Your task to perform on an android device: add a contact in the contacts app Image 0: 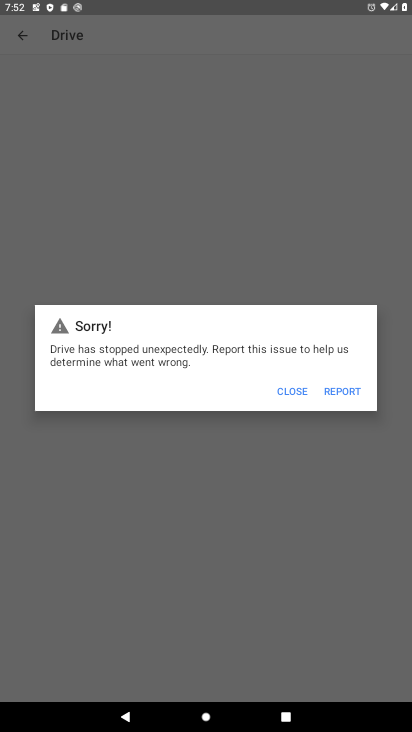
Step 0: press home button
Your task to perform on an android device: add a contact in the contacts app Image 1: 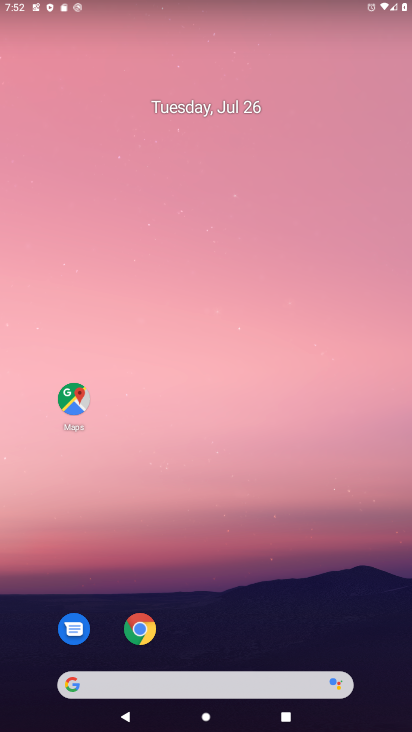
Step 1: drag from (267, 607) to (230, 50)
Your task to perform on an android device: add a contact in the contacts app Image 2: 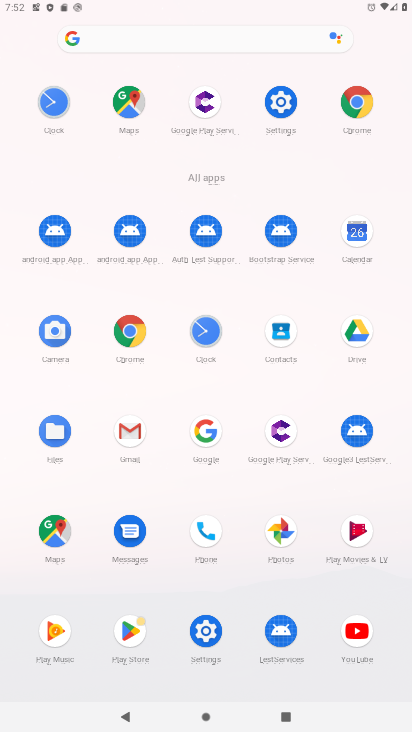
Step 2: click (282, 323)
Your task to perform on an android device: add a contact in the contacts app Image 3: 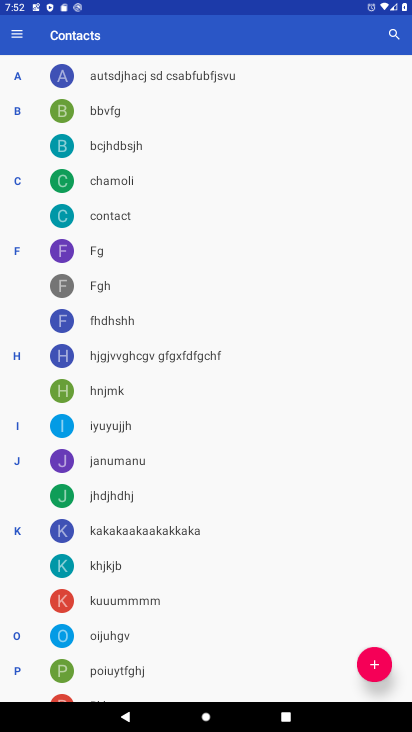
Step 3: click (373, 662)
Your task to perform on an android device: add a contact in the contacts app Image 4: 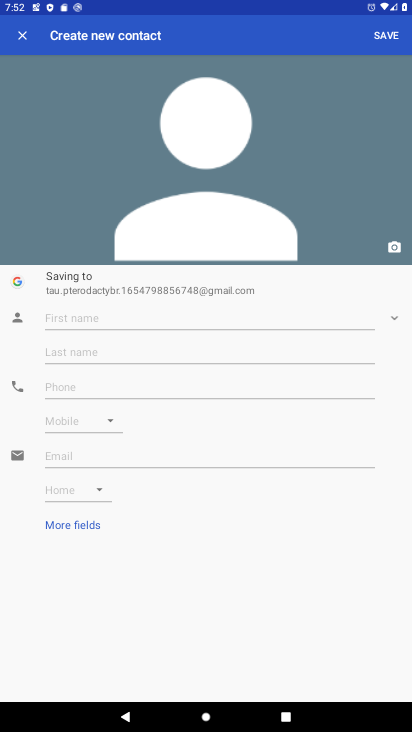
Step 4: click (373, 662)
Your task to perform on an android device: add a contact in the contacts app Image 5: 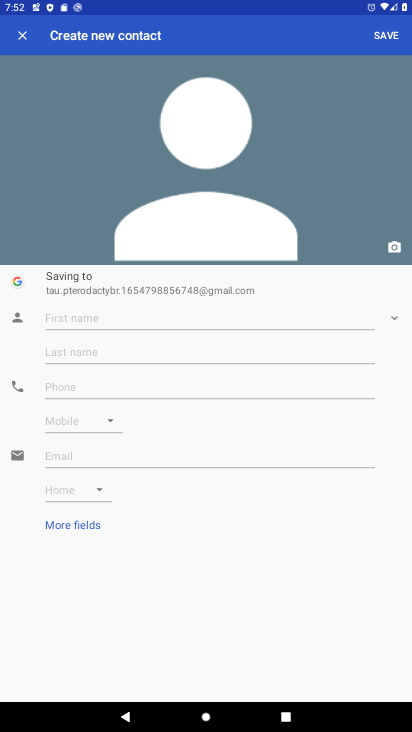
Step 5: click (135, 325)
Your task to perform on an android device: add a contact in the contacts app Image 6: 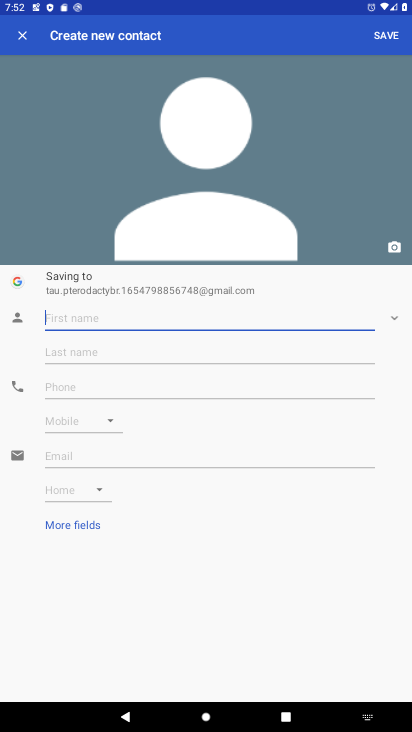
Step 6: type "mbc"
Your task to perform on an android device: add a contact in the contacts app Image 7: 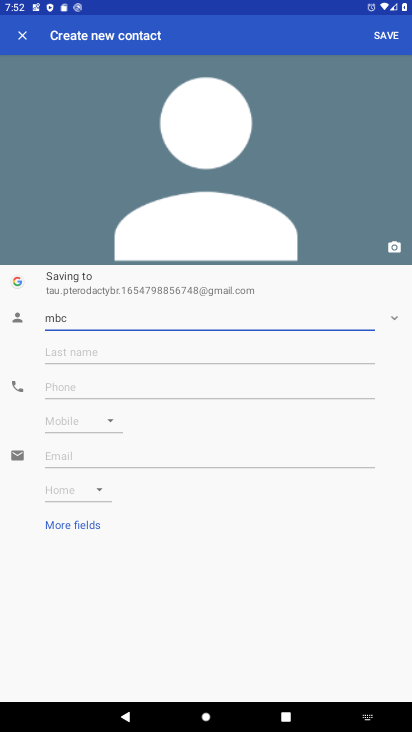
Step 7: click (64, 382)
Your task to perform on an android device: add a contact in the contacts app Image 8: 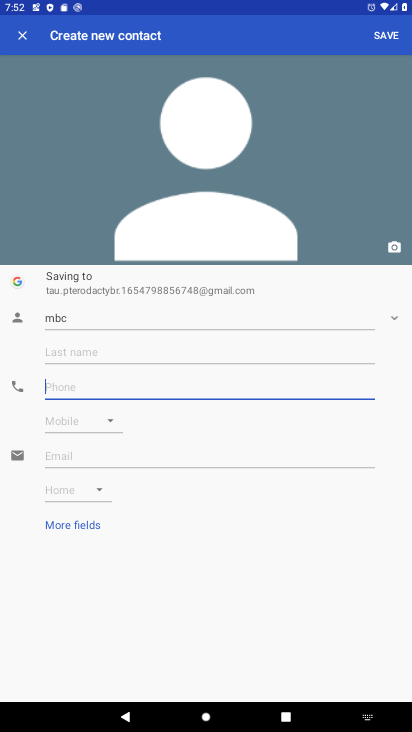
Step 8: type "9807654321"
Your task to perform on an android device: add a contact in the contacts app Image 9: 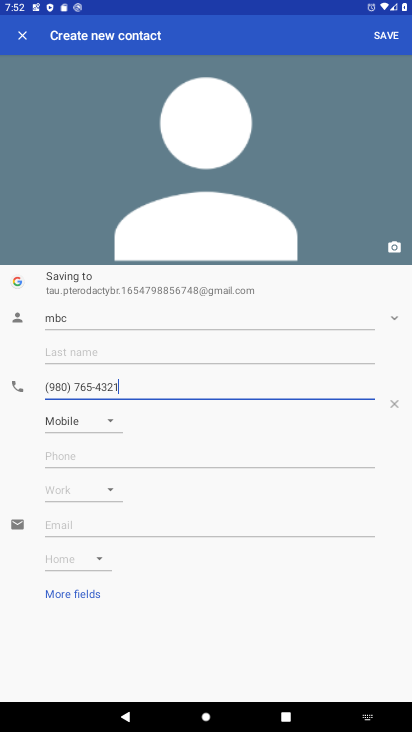
Step 9: click (381, 32)
Your task to perform on an android device: add a contact in the contacts app Image 10: 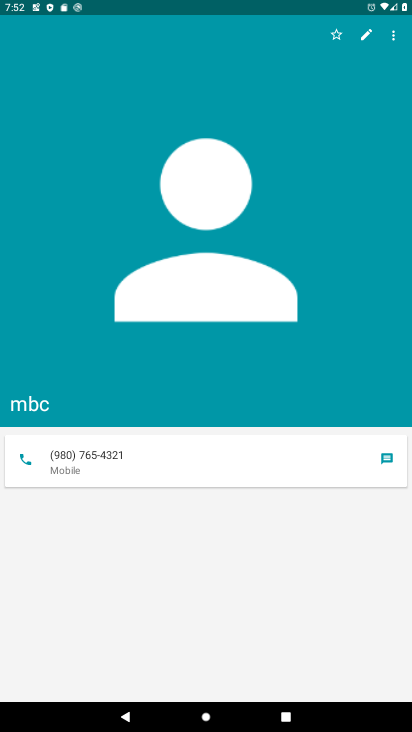
Step 10: task complete